Your task to perform on an android device: turn on location history Image 0: 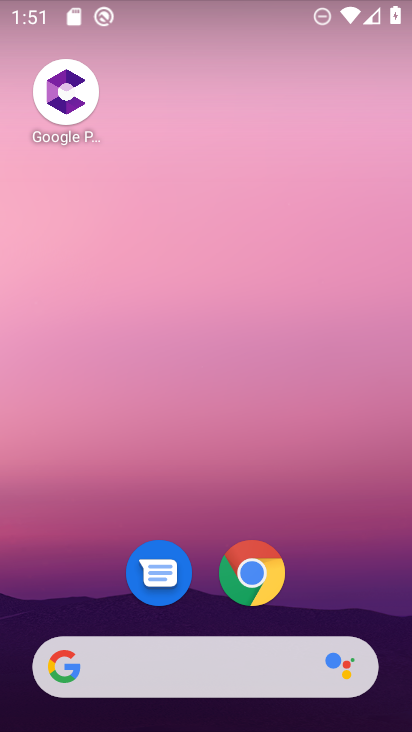
Step 0: drag from (268, 441) to (179, 150)
Your task to perform on an android device: turn on location history Image 1: 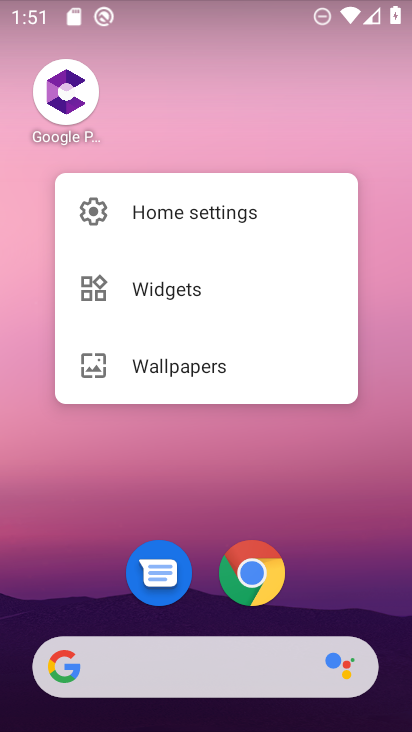
Step 1: drag from (300, 542) to (215, 155)
Your task to perform on an android device: turn on location history Image 2: 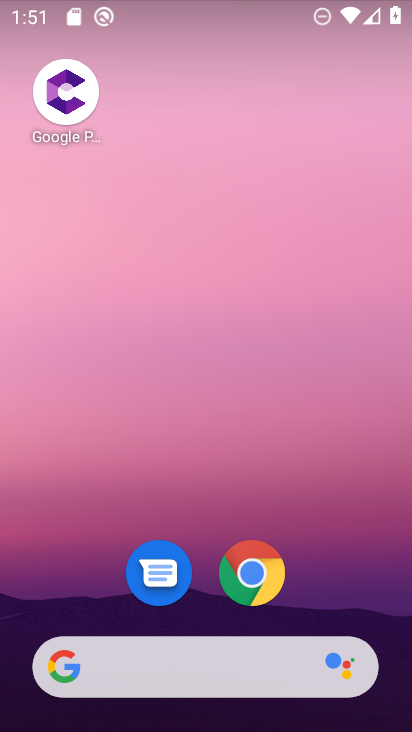
Step 2: drag from (312, 549) to (124, 94)
Your task to perform on an android device: turn on location history Image 3: 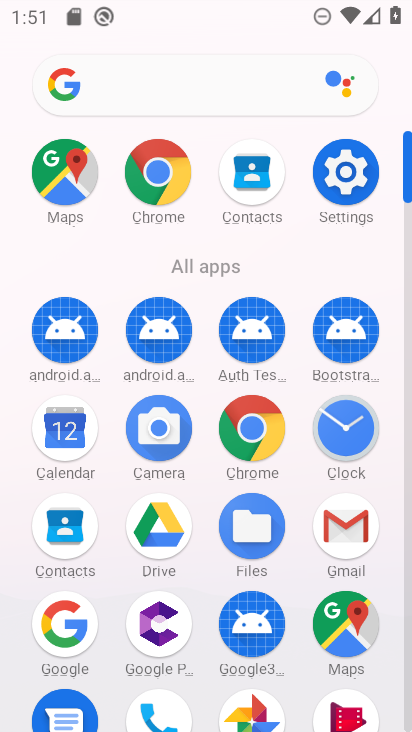
Step 3: click (327, 614)
Your task to perform on an android device: turn on location history Image 4: 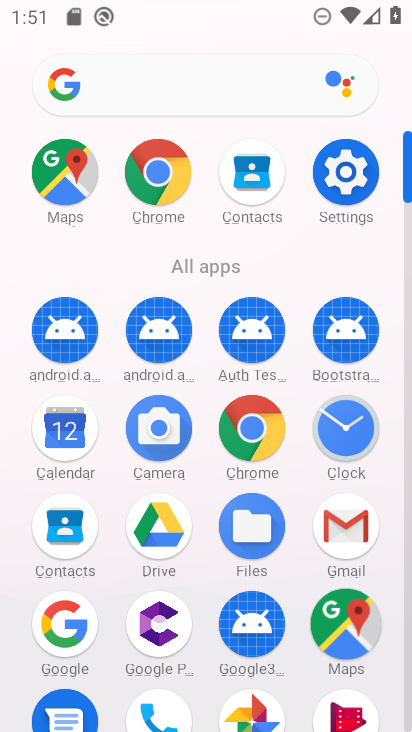
Step 4: click (328, 614)
Your task to perform on an android device: turn on location history Image 5: 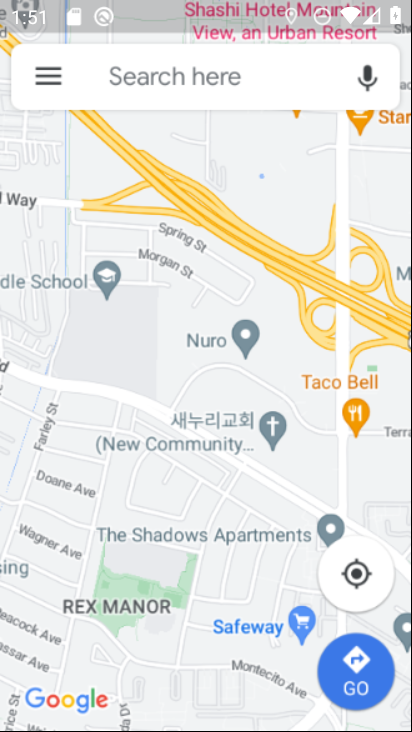
Step 5: click (333, 621)
Your task to perform on an android device: turn on location history Image 6: 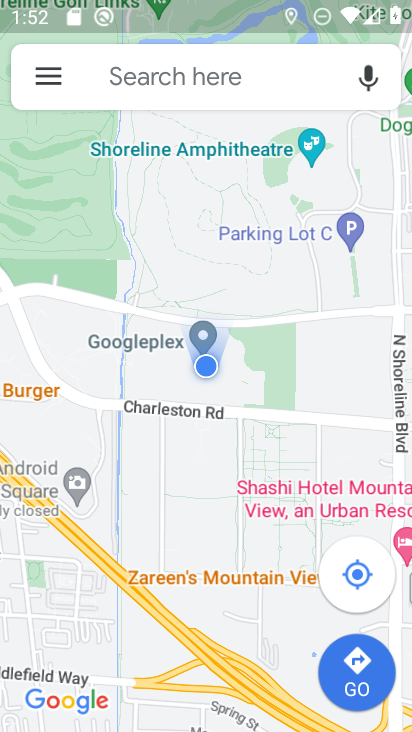
Step 6: click (44, 82)
Your task to perform on an android device: turn on location history Image 7: 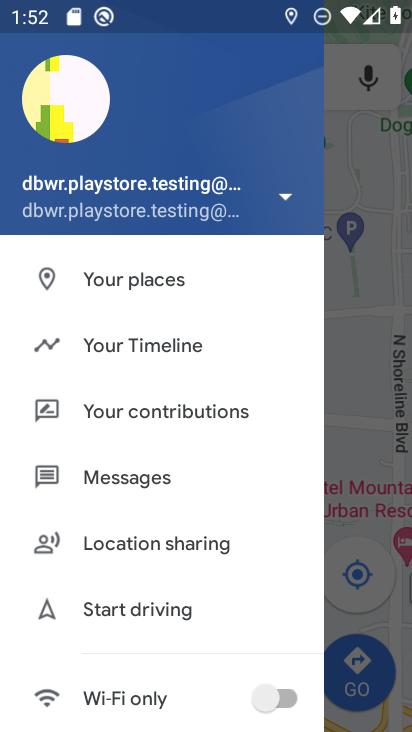
Step 7: click (153, 354)
Your task to perform on an android device: turn on location history Image 8: 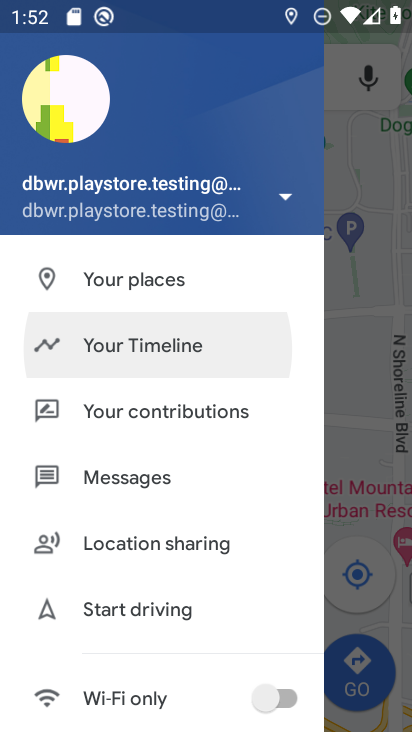
Step 8: click (156, 357)
Your task to perform on an android device: turn on location history Image 9: 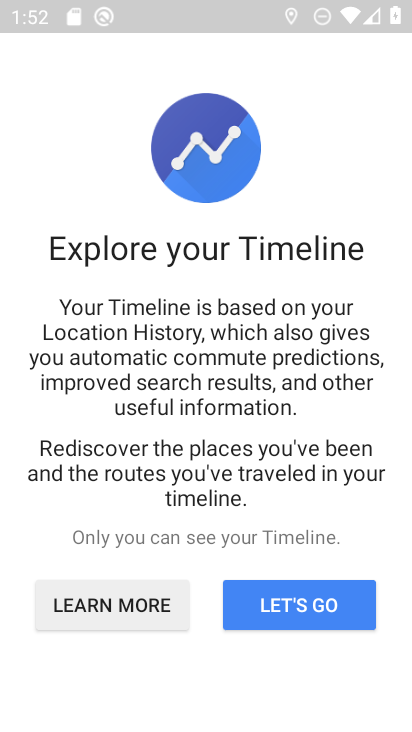
Step 9: click (278, 585)
Your task to perform on an android device: turn on location history Image 10: 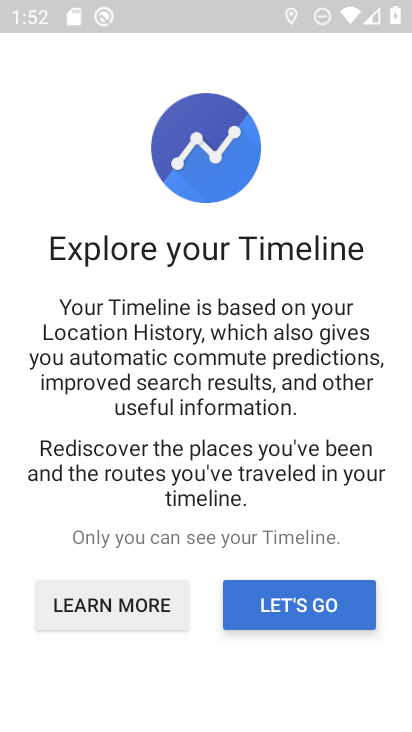
Step 10: click (278, 585)
Your task to perform on an android device: turn on location history Image 11: 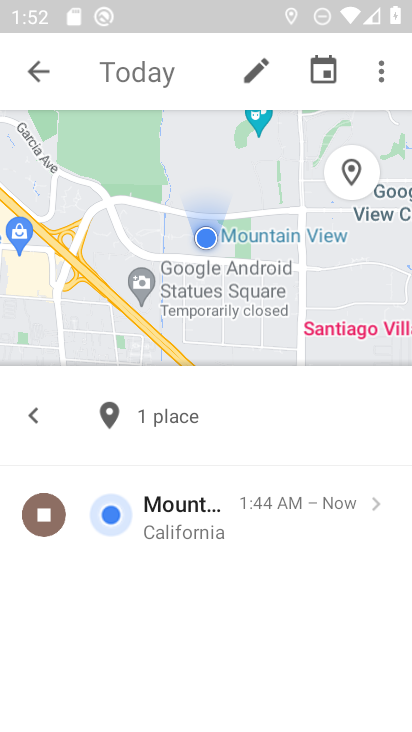
Step 11: click (381, 79)
Your task to perform on an android device: turn on location history Image 12: 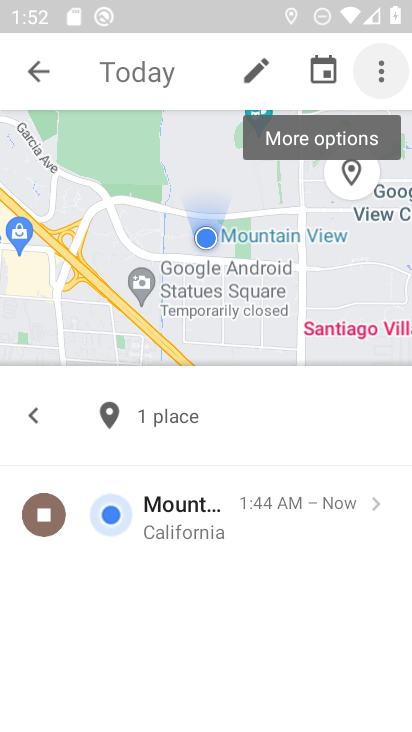
Step 12: click (378, 75)
Your task to perform on an android device: turn on location history Image 13: 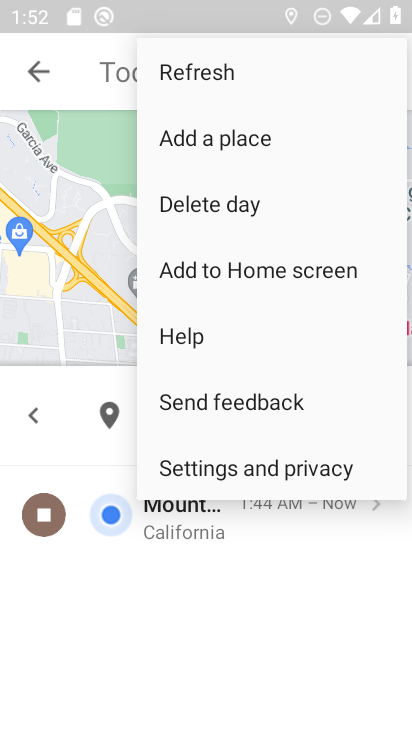
Step 13: click (254, 463)
Your task to perform on an android device: turn on location history Image 14: 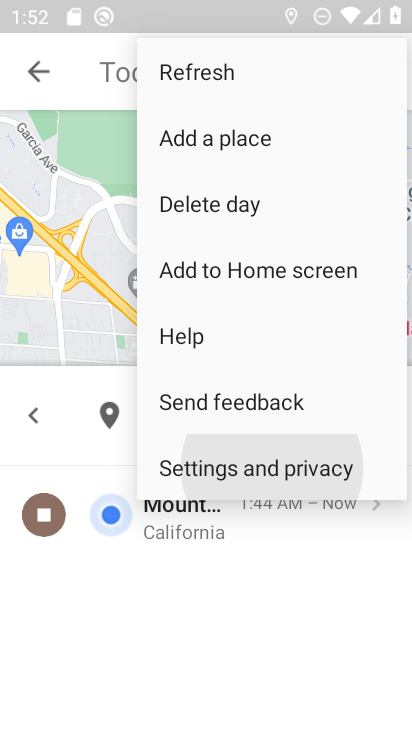
Step 14: click (254, 463)
Your task to perform on an android device: turn on location history Image 15: 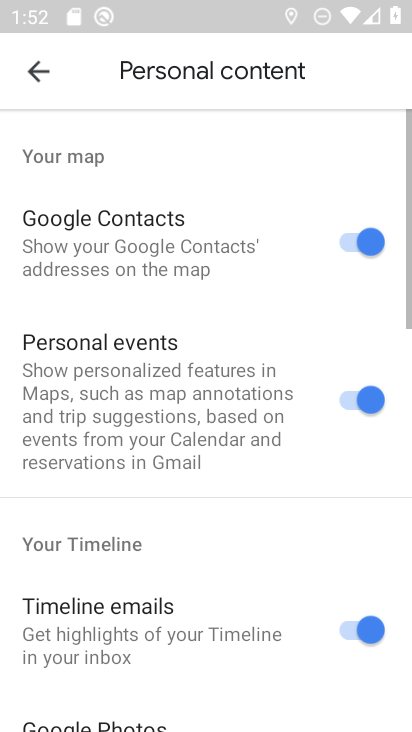
Step 15: drag from (166, 484) to (84, 12)
Your task to perform on an android device: turn on location history Image 16: 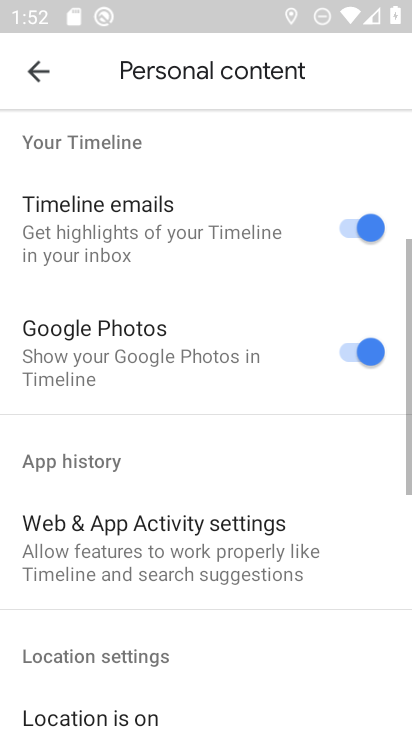
Step 16: drag from (195, 402) to (195, 87)
Your task to perform on an android device: turn on location history Image 17: 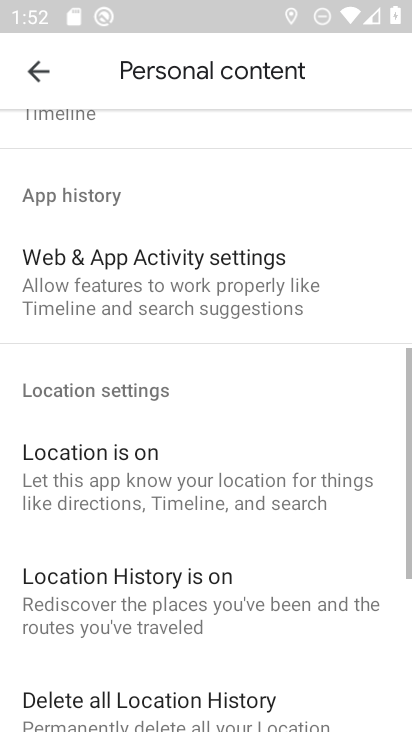
Step 17: drag from (190, 470) to (159, 101)
Your task to perform on an android device: turn on location history Image 18: 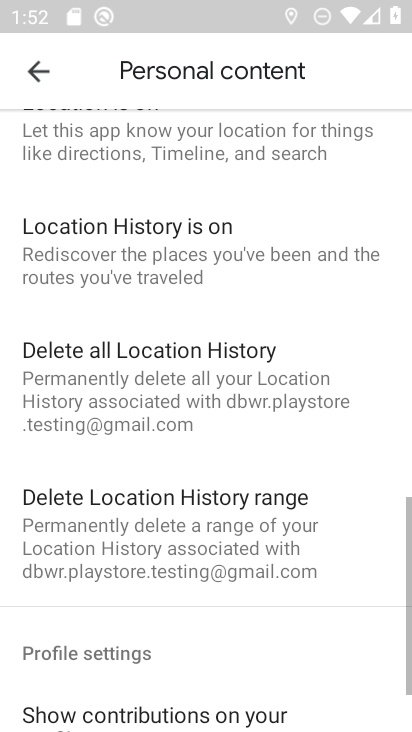
Step 18: drag from (170, 331) to (166, 154)
Your task to perform on an android device: turn on location history Image 19: 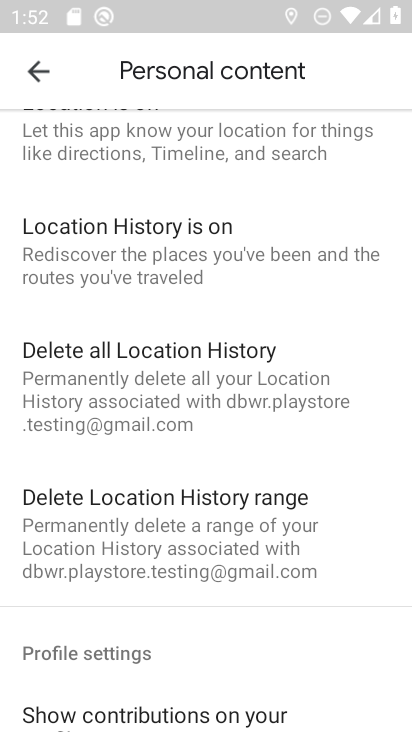
Step 19: drag from (147, 393) to (147, 52)
Your task to perform on an android device: turn on location history Image 20: 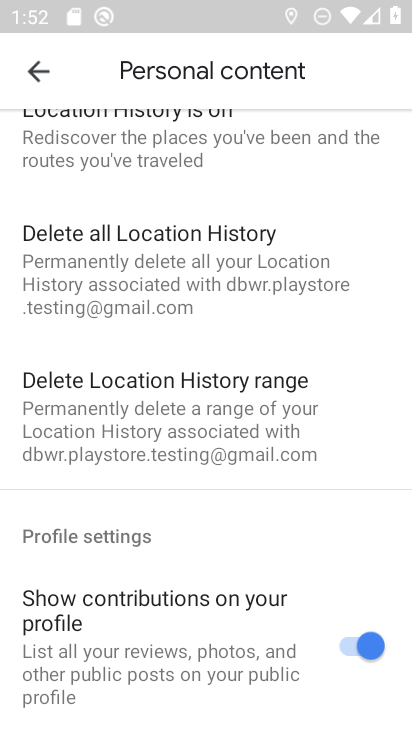
Step 20: drag from (109, 232) to (160, 415)
Your task to perform on an android device: turn on location history Image 21: 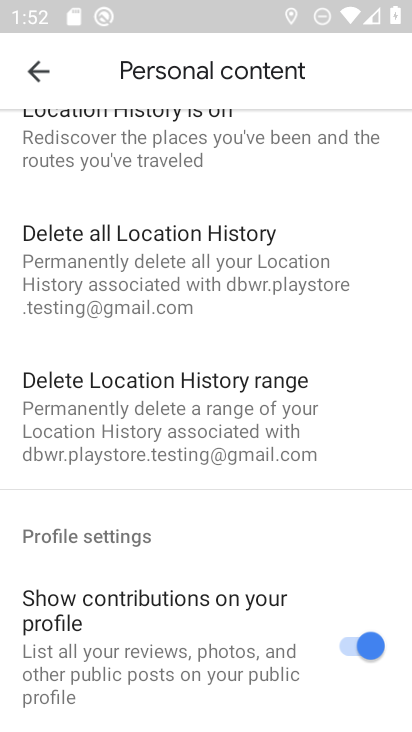
Step 21: drag from (105, 189) to (182, 457)
Your task to perform on an android device: turn on location history Image 22: 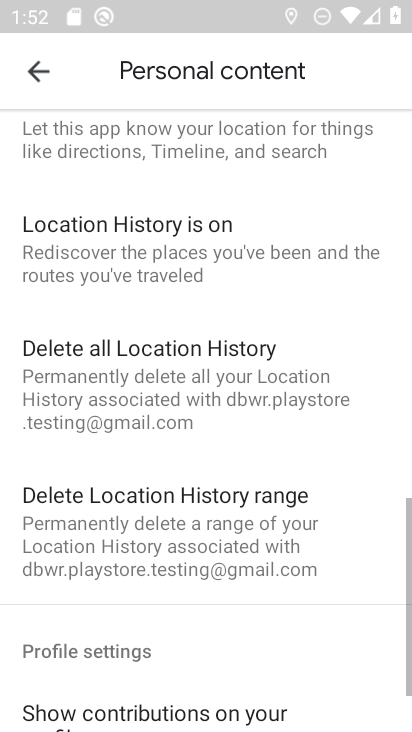
Step 22: drag from (95, 189) to (168, 409)
Your task to perform on an android device: turn on location history Image 23: 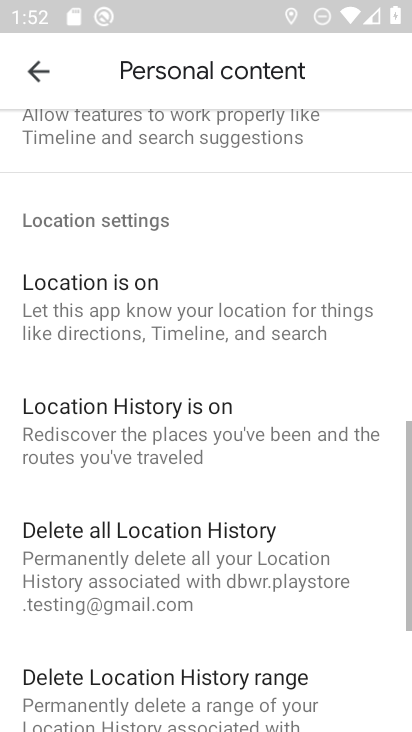
Step 23: drag from (135, 258) to (167, 372)
Your task to perform on an android device: turn on location history Image 24: 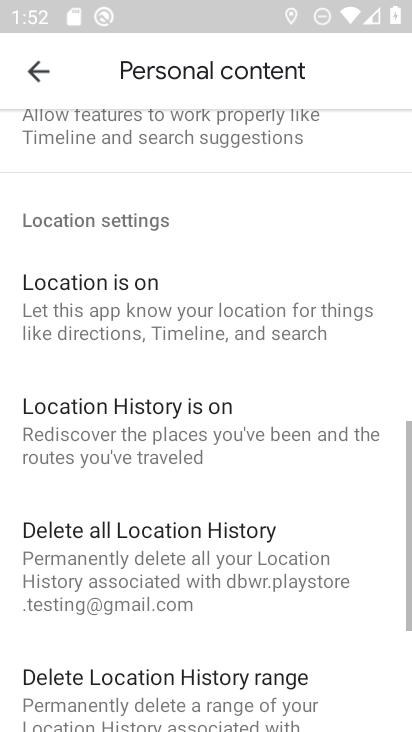
Step 24: drag from (152, 302) to (172, 411)
Your task to perform on an android device: turn on location history Image 25: 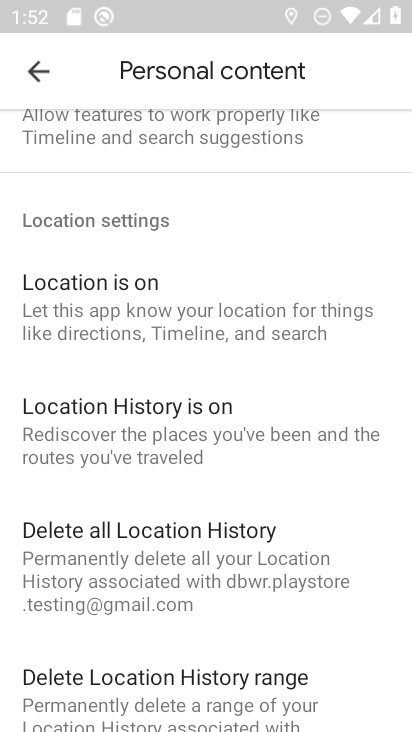
Step 25: drag from (120, 211) to (176, 406)
Your task to perform on an android device: turn on location history Image 26: 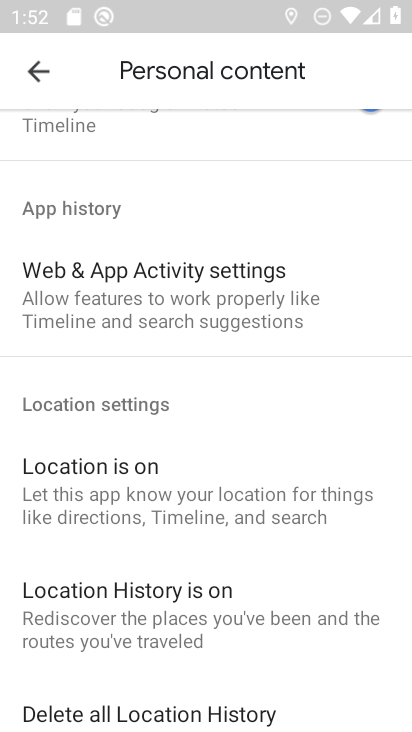
Step 26: drag from (119, 554) to (119, 94)
Your task to perform on an android device: turn on location history Image 27: 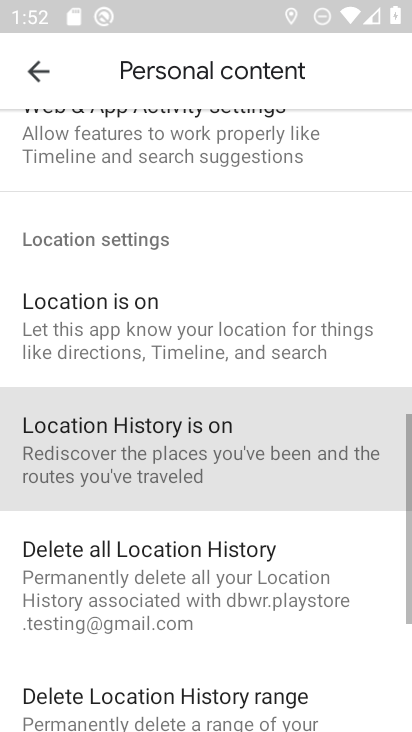
Step 27: drag from (185, 481) to (169, 155)
Your task to perform on an android device: turn on location history Image 28: 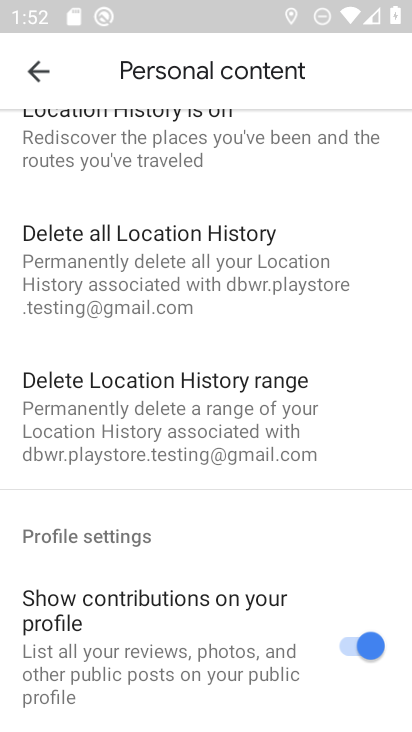
Step 28: drag from (113, 248) to (186, 502)
Your task to perform on an android device: turn on location history Image 29: 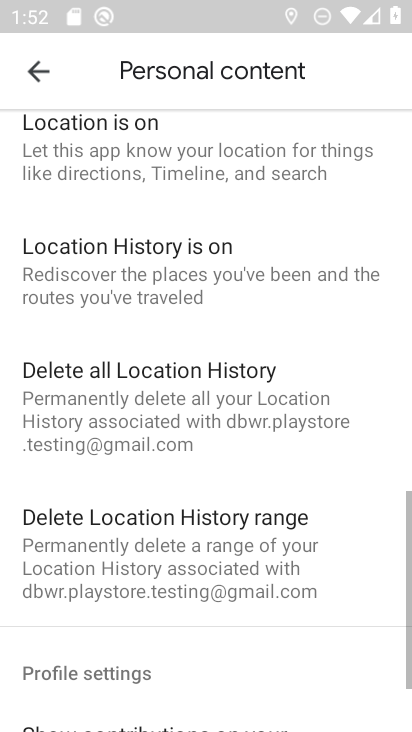
Step 29: drag from (155, 405) to (170, 480)
Your task to perform on an android device: turn on location history Image 30: 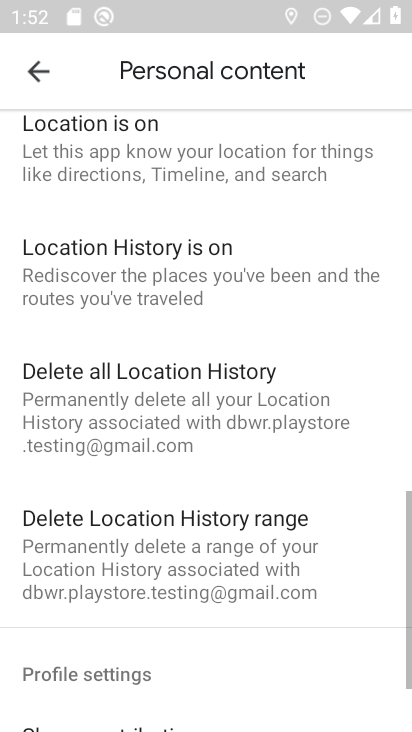
Step 30: click (204, 498)
Your task to perform on an android device: turn on location history Image 31: 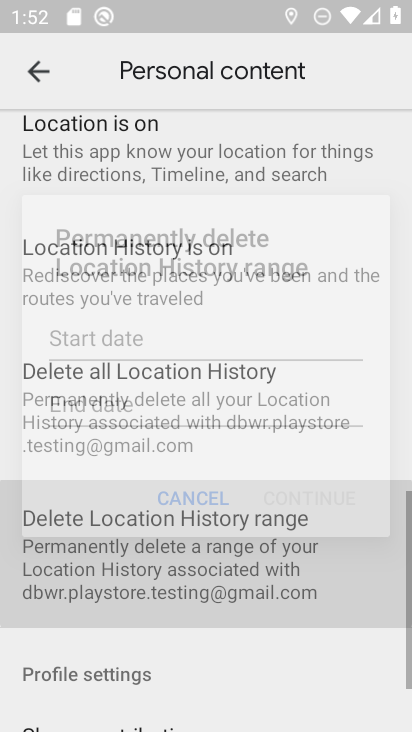
Step 31: click (205, 379)
Your task to perform on an android device: turn on location history Image 32: 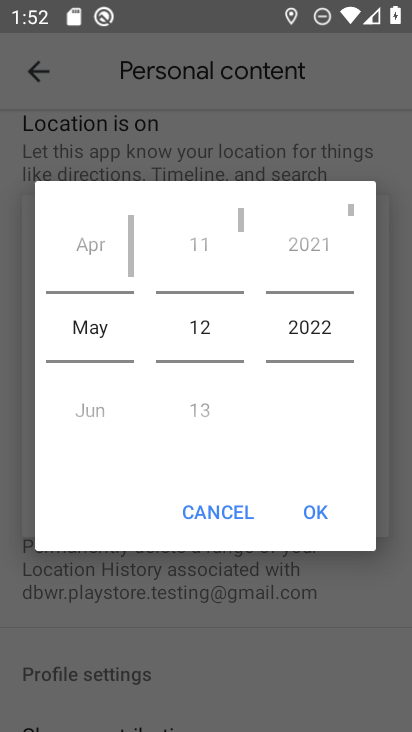
Step 32: click (232, 508)
Your task to perform on an android device: turn on location history Image 33: 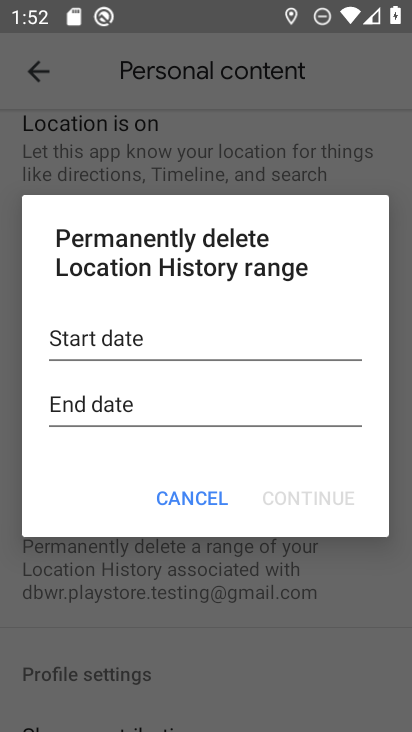
Step 33: click (226, 504)
Your task to perform on an android device: turn on location history Image 34: 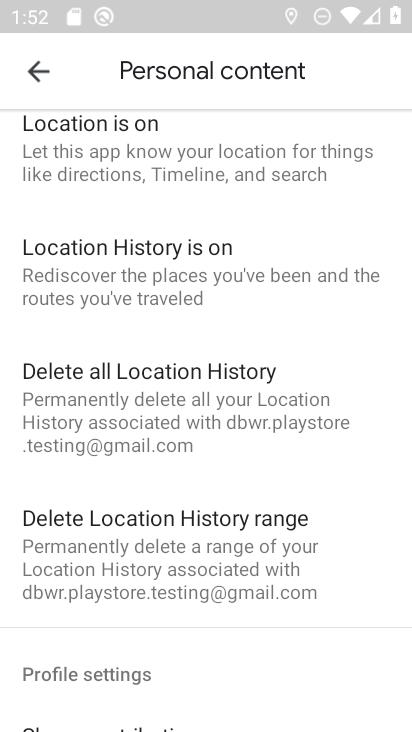
Step 34: click (201, 497)
Your task to perform on an android device: turn on location history Image 35: 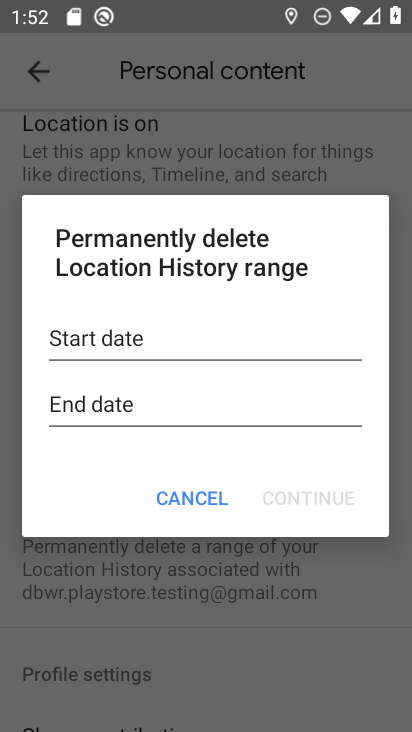
Step 35: click (182, 495)
Your task to perform on an android device: turn on location history Image 36: 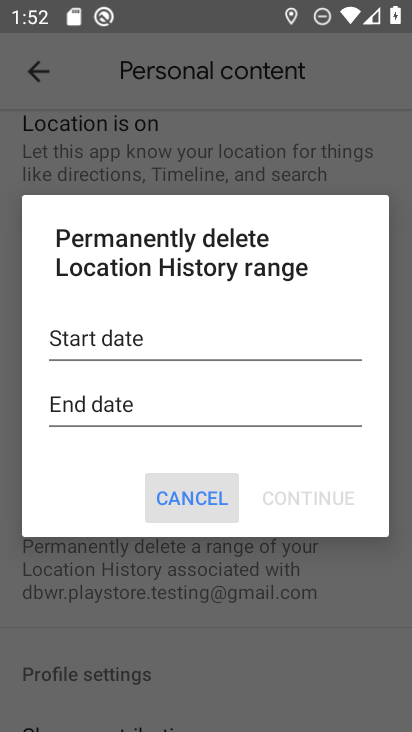
Step 36: click (182, 495)
Your task to perform on an android device: turn on location history Image 37: 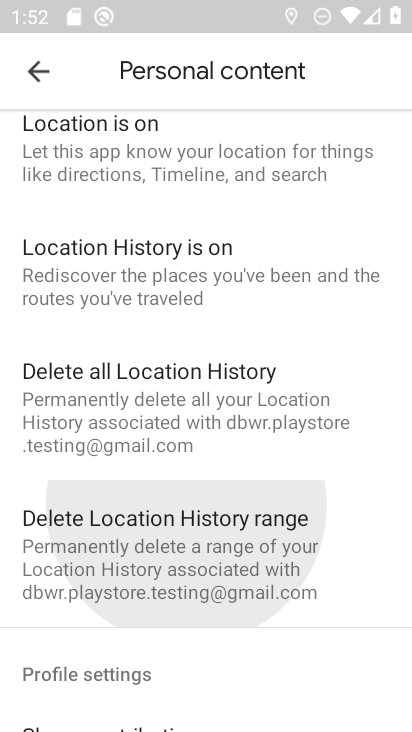
Step 37: click (182, 495)
Your task to perform on an android device: turn on location history Image 38: 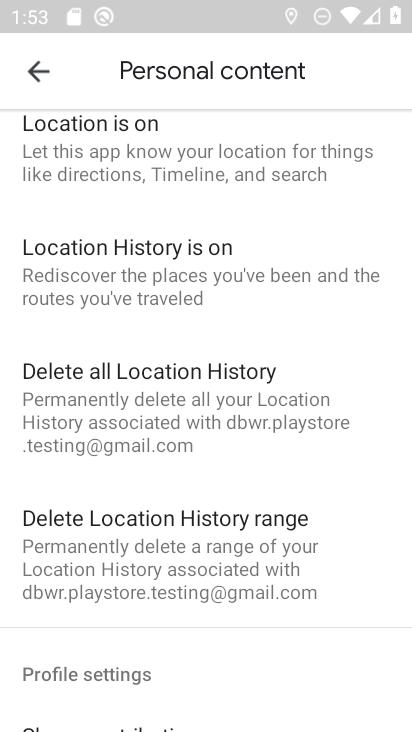
Step 38: click (107, 274)
Your task to perform on an android device: turn on location history Image 39: 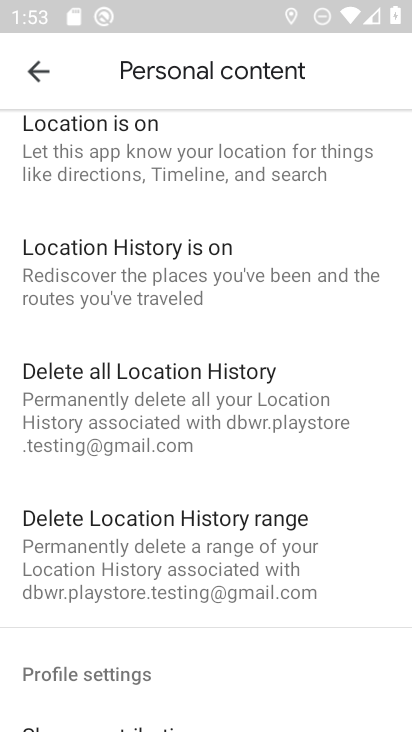
Step 39: click (107, 274)
Your task to perform on an android device: turn on location history Image 40: 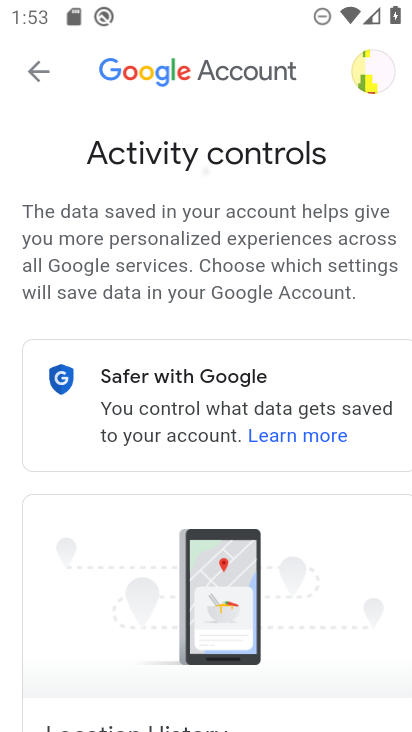
Step 40: drag from (198, 553) to (141, 120)
Your task to perform on an android device: turn on location history Image 41: 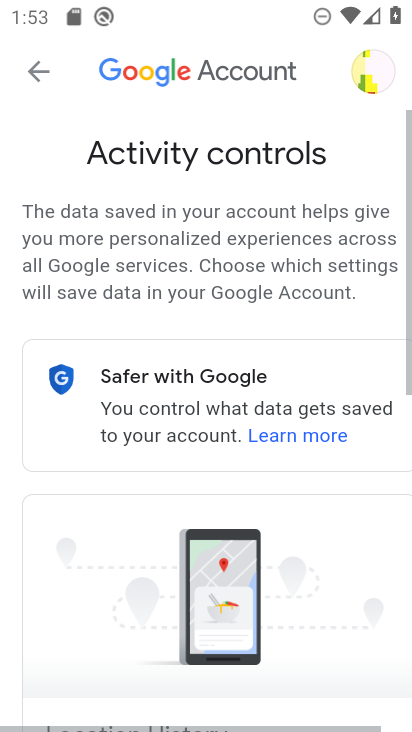
Step 41: drag from (221, 454) to (148, 20)
Your task to perform on an android device: turn on location history Image 42: 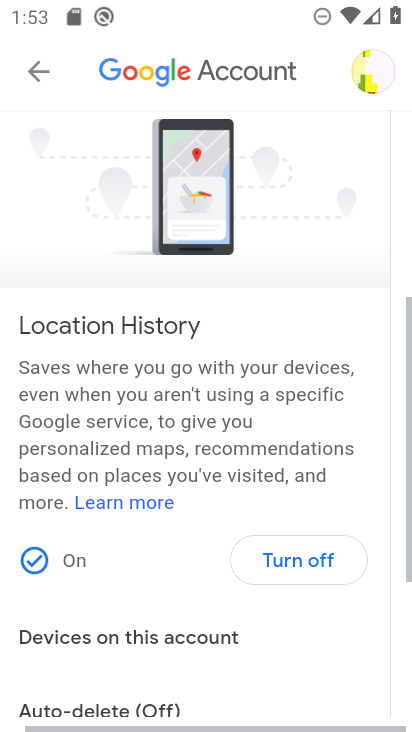
Step 42: drag from (279, 385) to (246, 167)
Your task to perform on an android device: turn on location history Image 43: 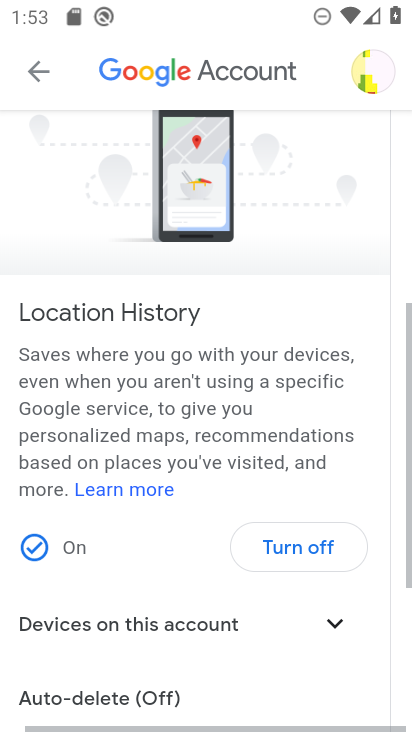
Step 43: drag from (268, 460) to (282, 108)
Your task to perform on an android device: turn on location history Image 44: 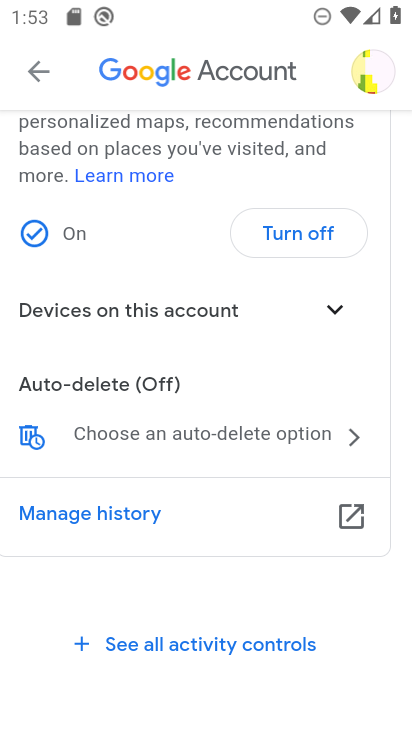
Step 44: click (314, 227)
Your task to perform on an android device: turn on location history Image 45: 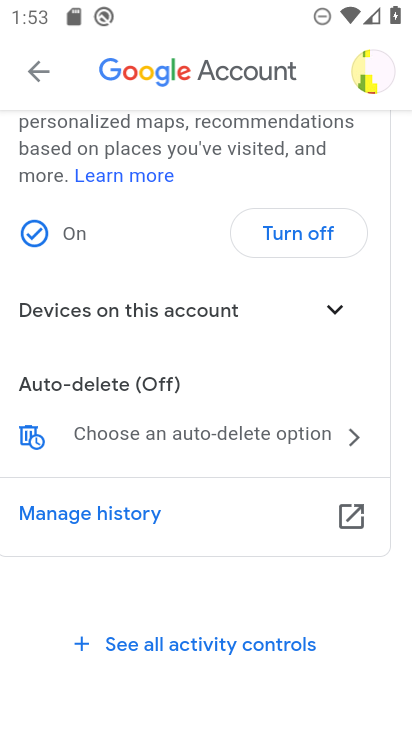
Step 45: click (314, 227)
Your task to perform on an android device: turn on location history Image 46: 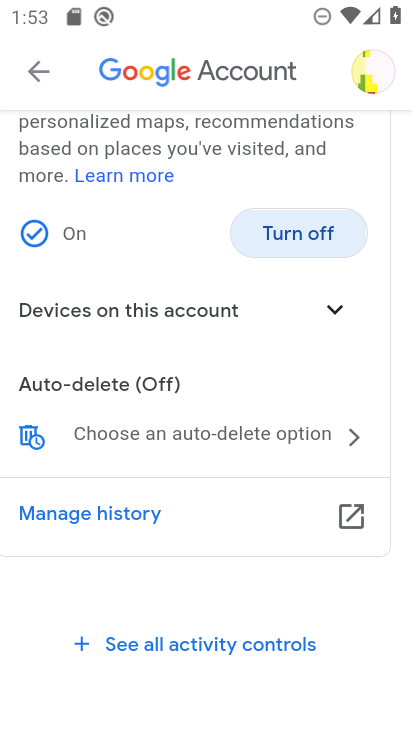
Step 46: click (311, 245)
Your task to perform on an android device: turn on location history Image 47: 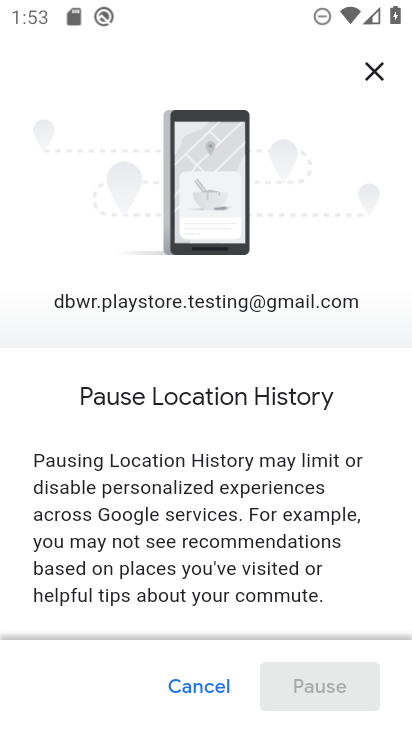
Step 47: drag from (235, 582) to (209, 204)
Your task to perform on an android device: turn on location history Image 48: 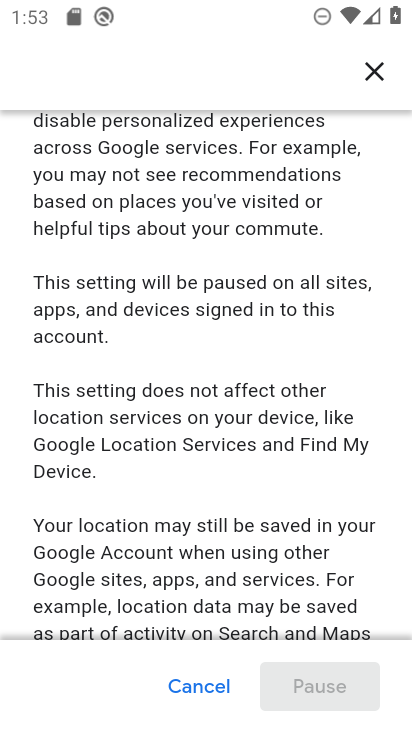
Step 48: drag from (259, 471) to (231, 174)
Your task to perform on an android device: turn on location history Image 49: 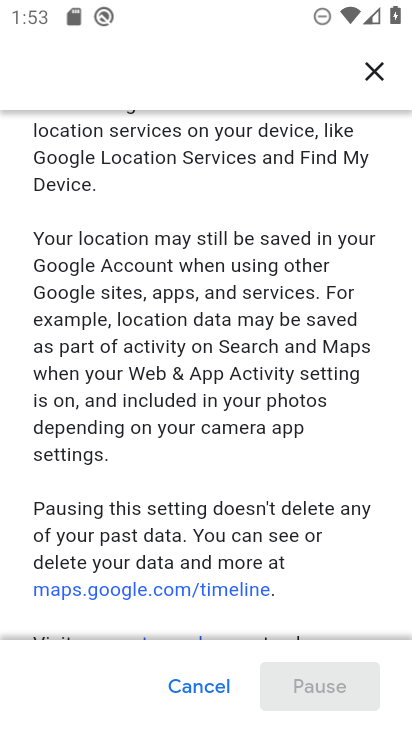
Step 49: drag from (271, 437) to (236, 96)
Your task to perform on an android device: turn on location history Image 50: 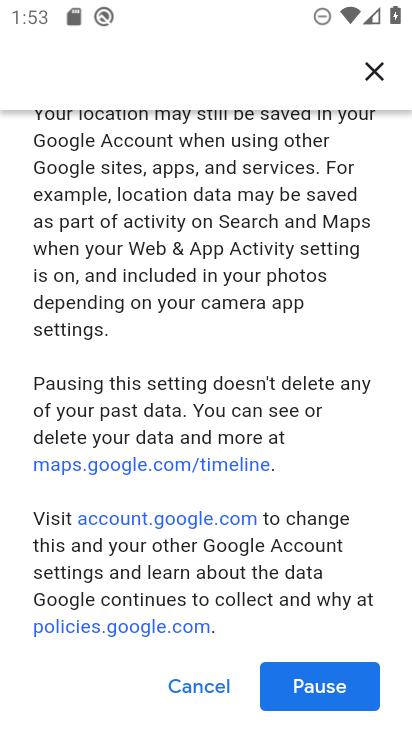
Step 50: drag from (221, 382) to (211, 98)
Your task to perform on an android device: turn on location history Image 51: 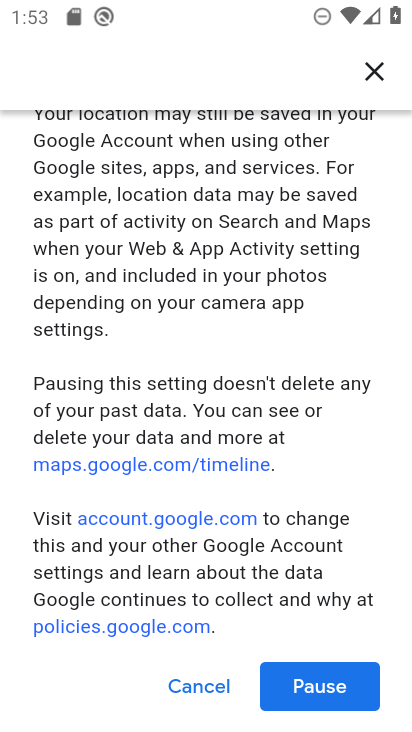
Step 51: click (311, 689)
Your task to perform on an android device: turn on location history Image 52: 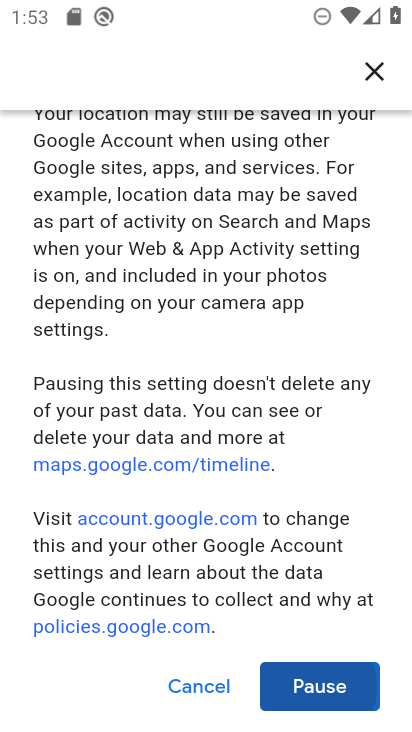
Step 52: click (196, 695)
Your task to perform on an android device: turn on location history Image 53: 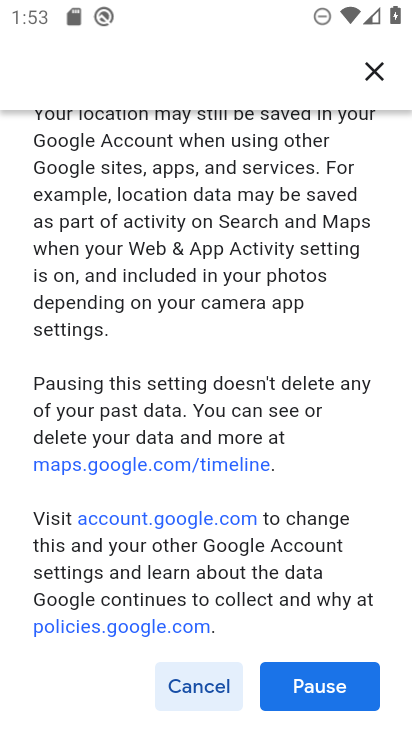
Step 53: drag from (302, 445) to (195, 13)
Your task to perform on an android device: turn on location history Image 54: 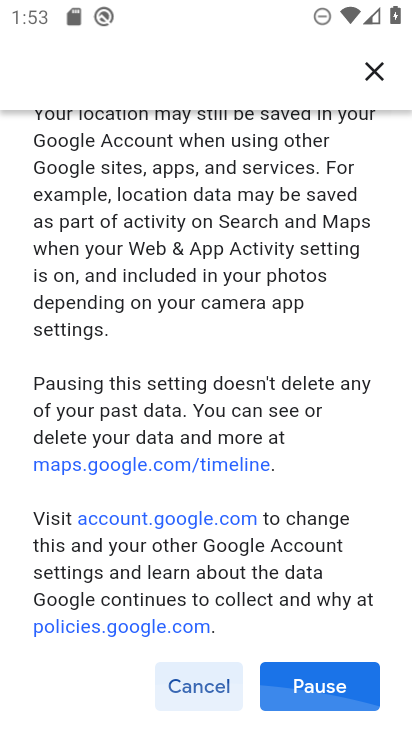
Step 54: drag from (225, 401) to (190, 190)
Your task to perform on an android device: turn on location history Image 55: 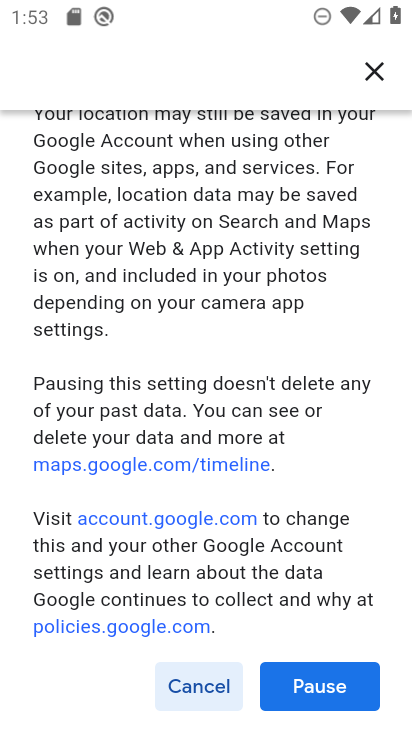
Step 55: click (184, 685)
Your task to perform on an android device: turn on location history Image 56: 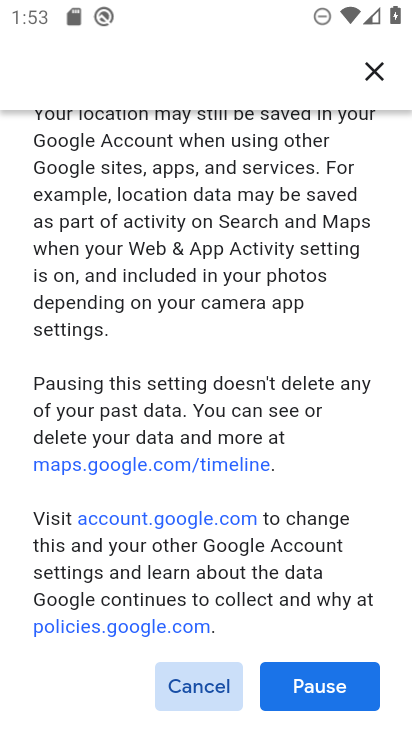
Step 56: click (186, 688)
Your task to perform on an android device: turn on location history Image 57: 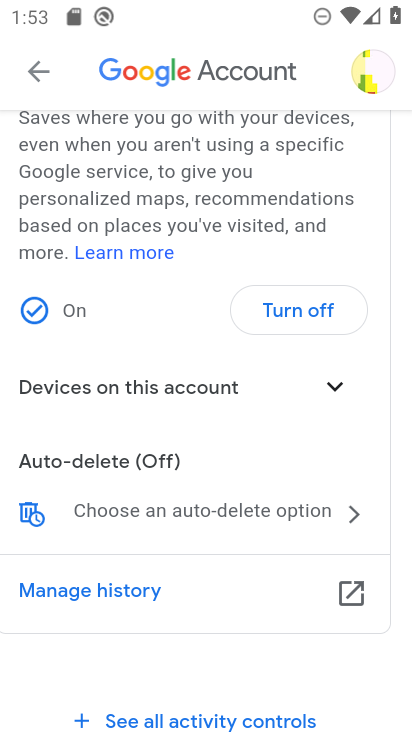
Step 57: drag from (222, 516) to (168, 130)
Your task to perform on an android device: turn on location history Image 58: 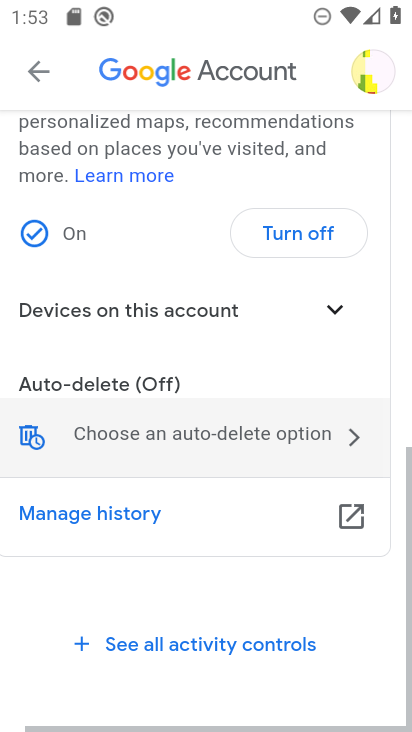
Step 58: drag from (233, 454) to (221, 140)
Your task to perform on an android device: turn on location history Image 59: 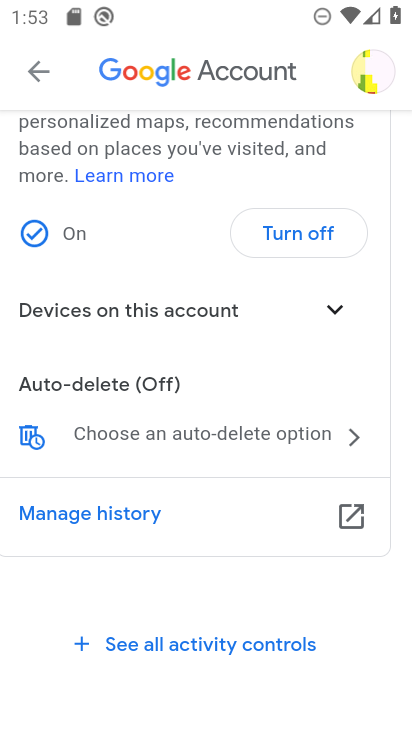
Step 59: click (311, 232)
Your task to perform on an android device: turn on location history Image 60: 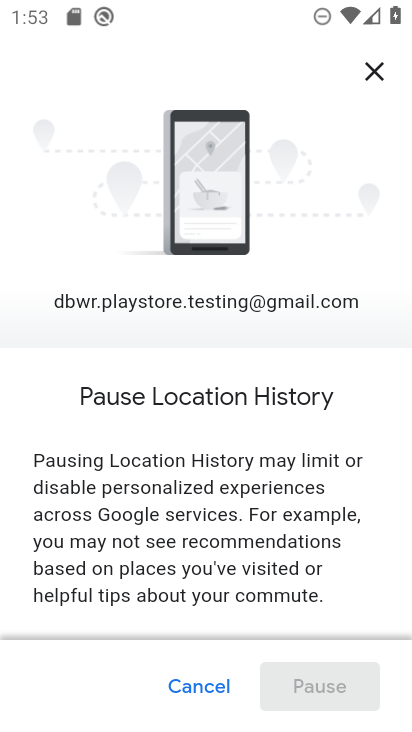
Step 60: task complete